Your task to perform on an android device: toggle translation in the chrome app Image 0: 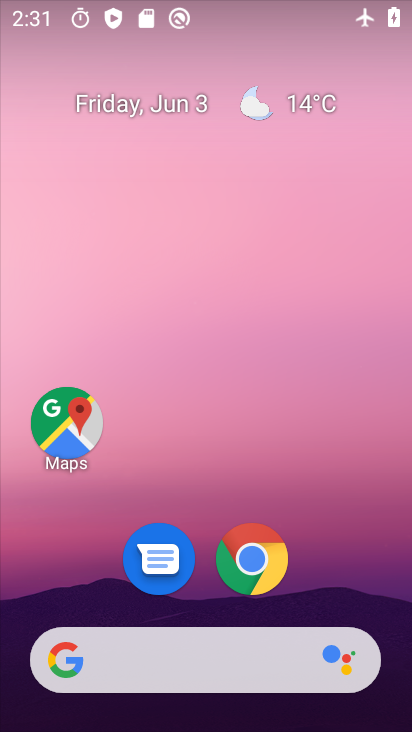
Step 0: click (243, 583)
Your task to perform on an android device: toggle translation in the chrome app Image 1: 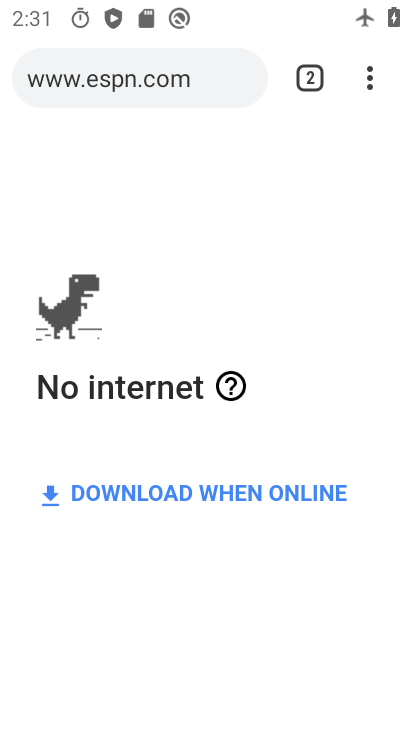
Step 1: drag from (366, 73) to (107, 642)
Your task to perform on an android device: toggle translation in the chrome app Image 2: 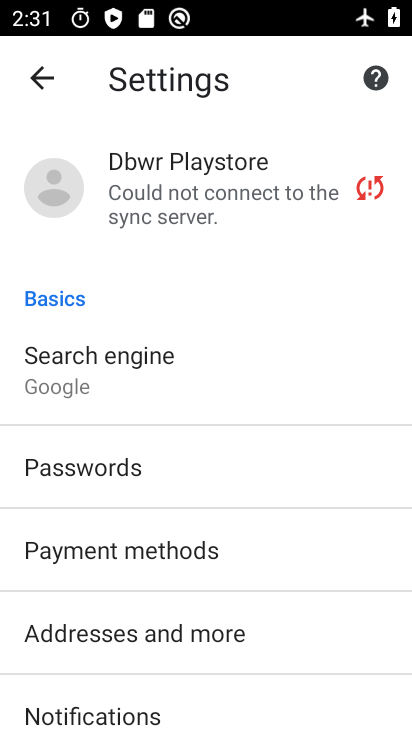
Step 2: drag from (203, 577) to (163, 68)
Your task to perform on an android device: toggle translation in the chrome app Image 3: 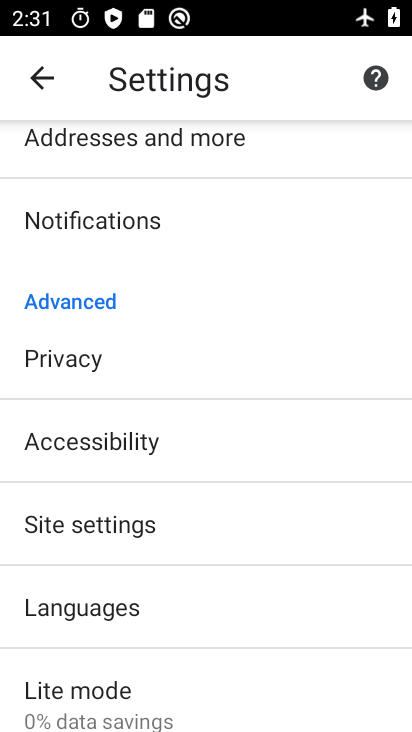
Step 3: click (105, 614)
Your task to perform on an android device: toggle translation in the chrome app Image 4: 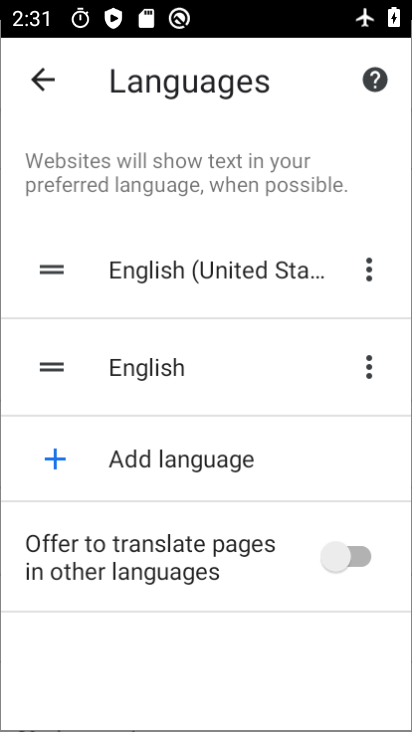
Step 4: drag from (105, 614) to (84, 268)
Your task to perform on an android device: toggle translation in the chrome app Image 5: 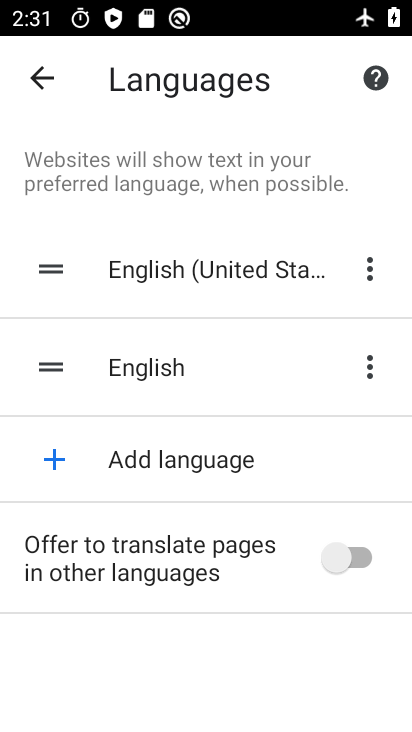
Step 5: click (343, 572)
Your task to perform on an android device: toggle translation in the chrome app Image 6: 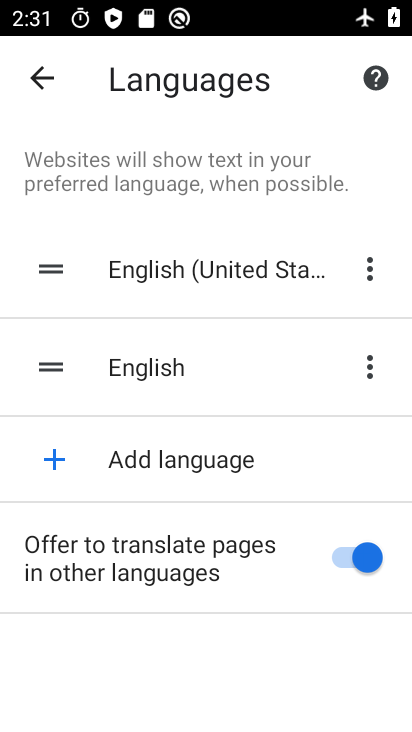
Step 6: task complete